Your task to perform on an android device: toggle data saver in the chrome app Image 0: 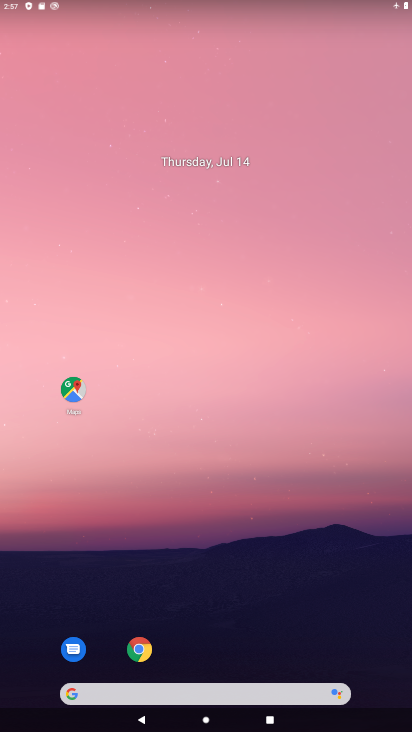
Step 0: drag from (248, 643) to (379, 4)
Your task to perform on an android device: toggle data saver in the chrome app Image 1: 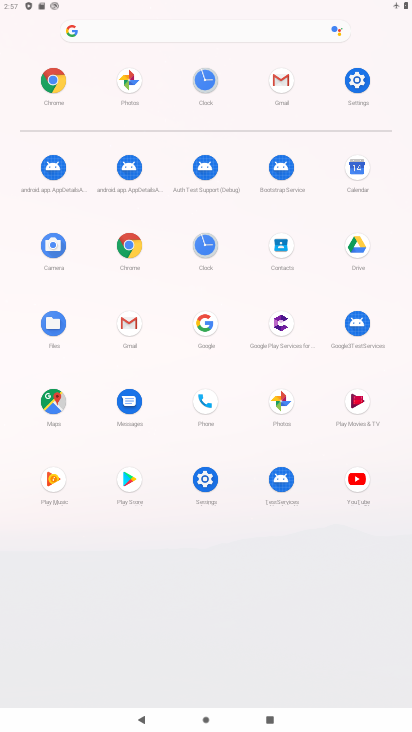
Step 1: click (133, 252)
Your task to perform on an android device: toggle data saver in the chrome app Image 2: 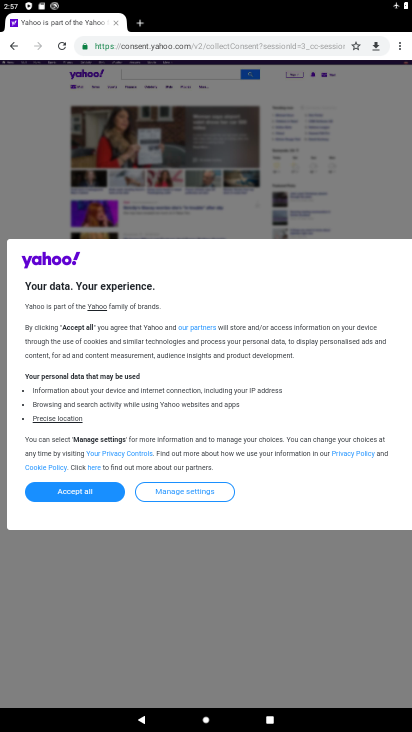
Step 2: click (399, 39)
Your task to perform on an android device: toggle data saver in the chrome app Image 3: 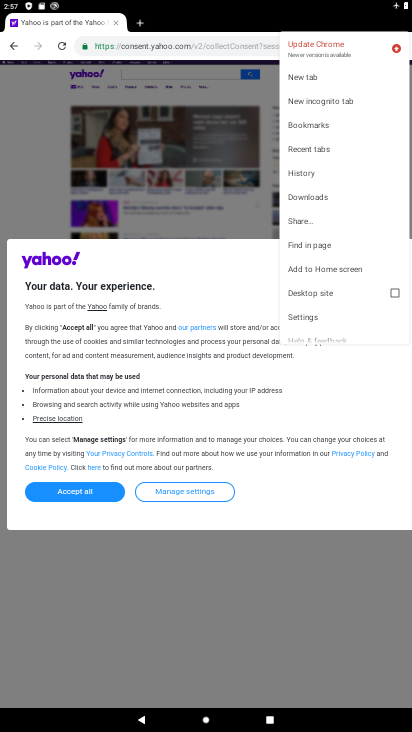
Step 3: click (311, 317)
Your task to perform on an android device: toggle data saver in the chrome app Image 4: 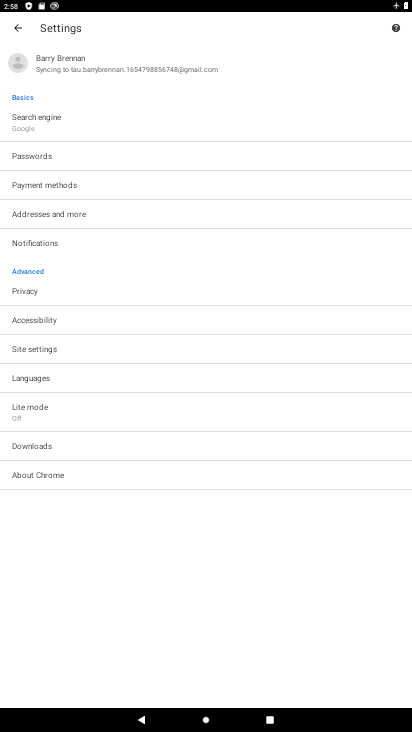
Step 4: click (42, 415)
Your task to perform on an android device: toggle data saver in the chrome app Image 5: 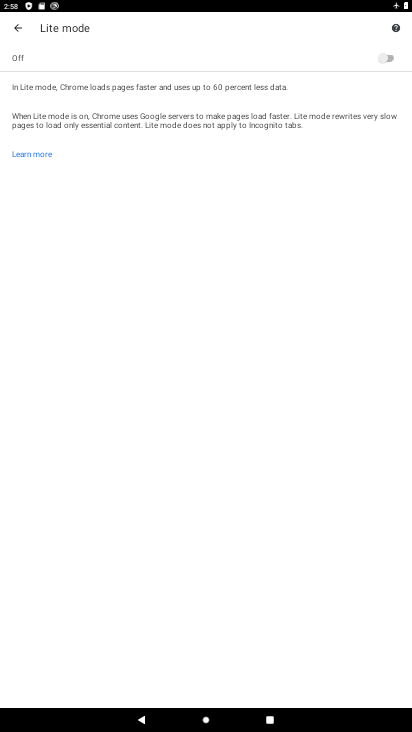
Step 5: click (388, 62)
Your task to perform on an android device: toggle data saver in the chrome app Image 6: 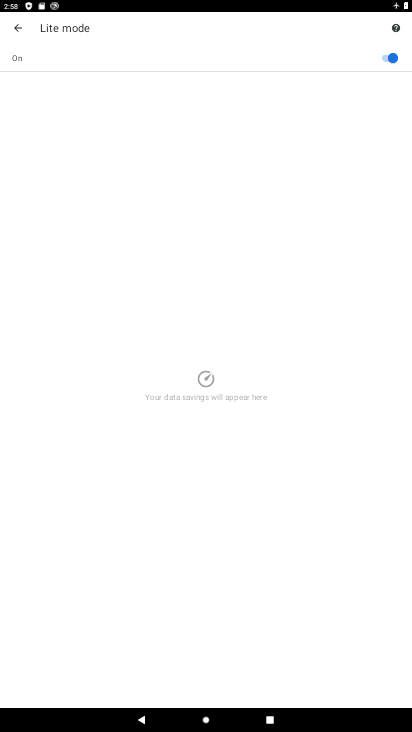
Step 6: task complete